Your task to perform on an android device: turn on airplane mode Image 0: 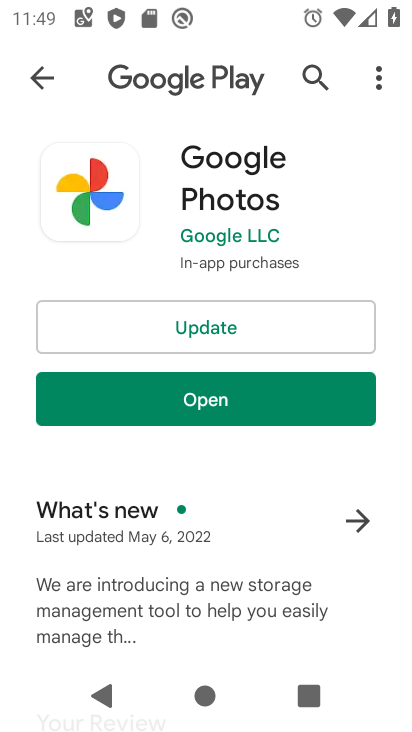
Step 0: press home button
Your task to perform on an android device: turn on airplane mode Image 1: 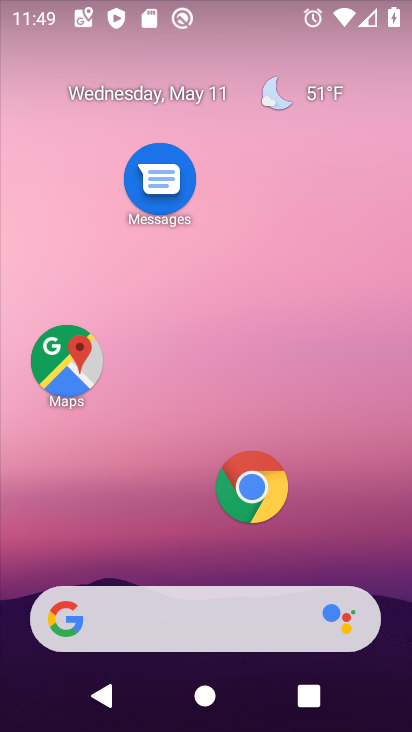
Step 1: drag from (204, 533) to (249, 110)
Your task to perform on an android device: turn on airplane mode Image 2: 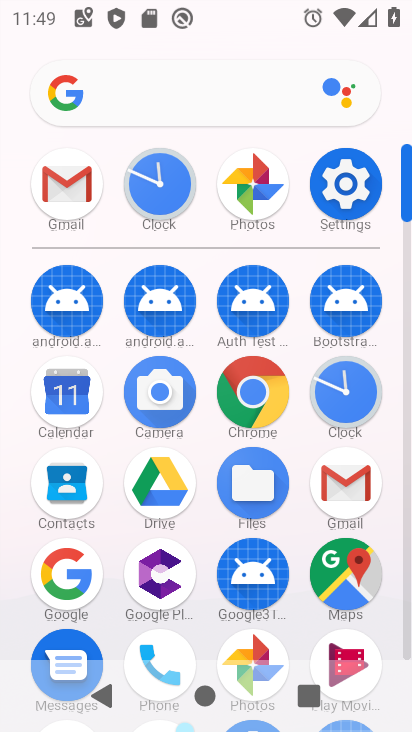
Step 2: click (332, 156)
Your task to perform on an android device: turn on airplane mode Image 3: 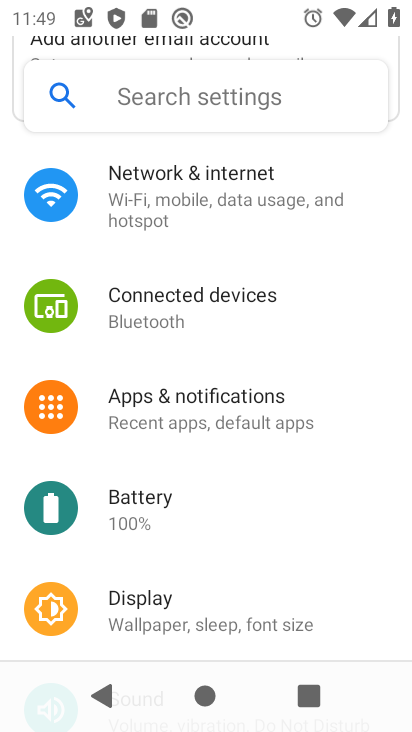
Step 3: click (192, 228)
Your task to perform on an android device: turn on airplane mode Image 4: 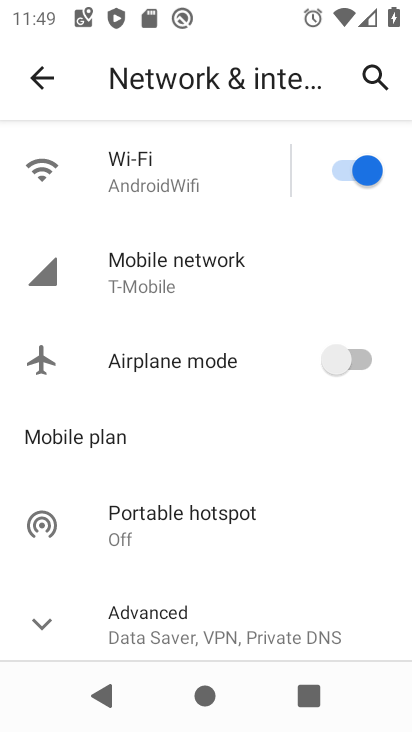
Step 4: click (355, 353)
Your task to perform on an android device: turn on airplane mode Image 5: 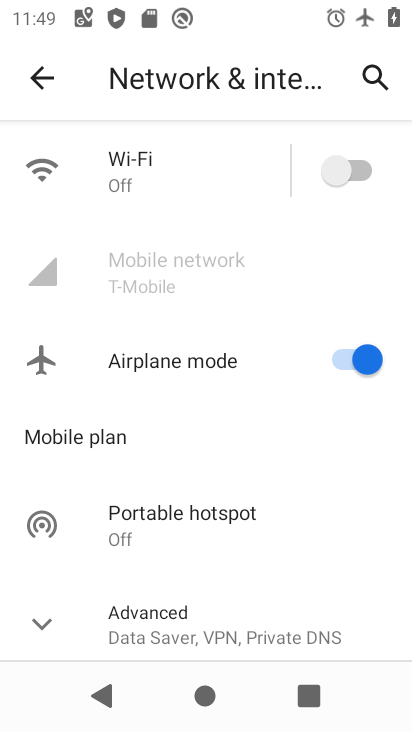
Step 5: task complete